Your task to perform on an android device: change notifications settings Image 0: 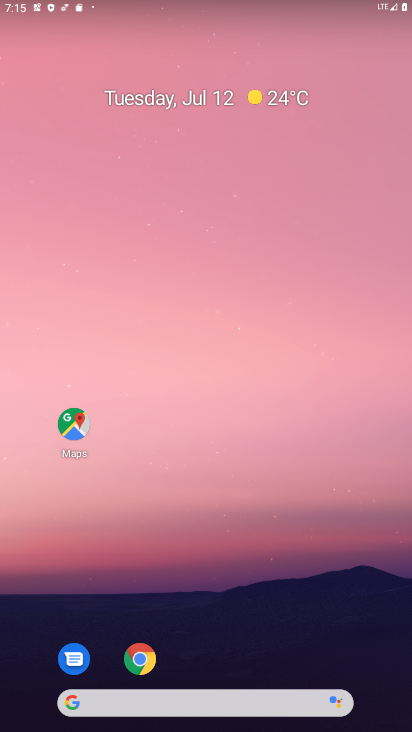
Step 0: drag from (359, 681) to (192, 2)
Your task to perform on an android device: change notifications settings Image 1: 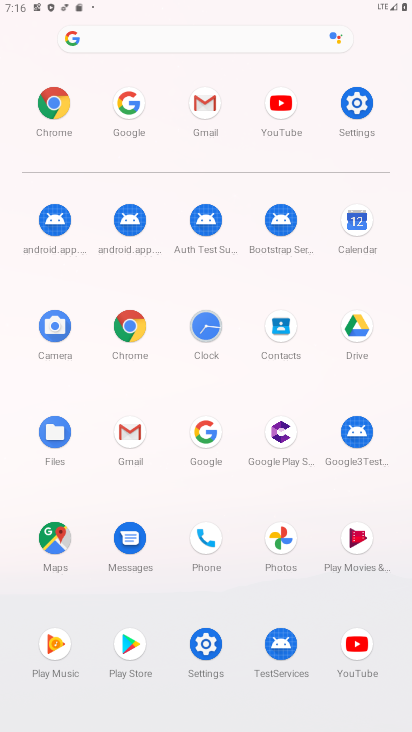
Step 1: click (198, 643)
Your task to perform on an android device: change notifications settings Image 2: 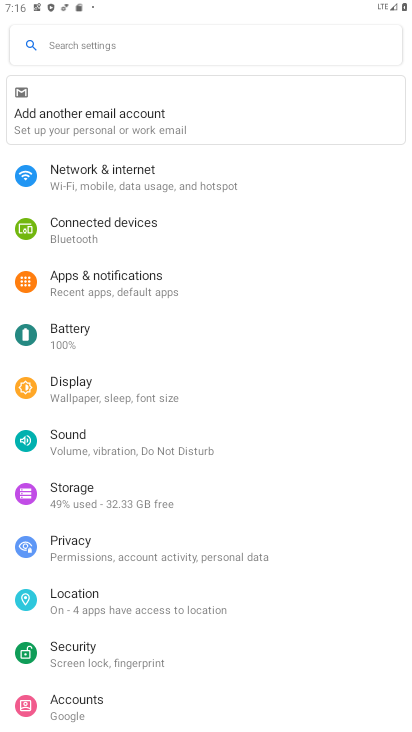
Step 2: click (102, 292)
Your task to perform on an android device: change notifications settings Image 3: 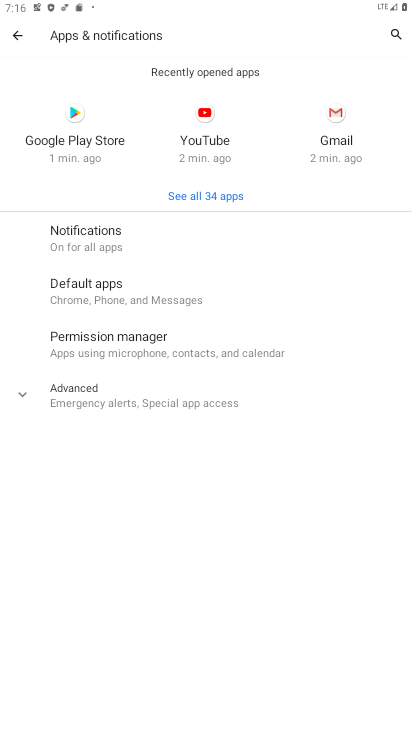
Step 3: click (84, 258)
Your task to perform on an android device: change notifications settings Image 4: 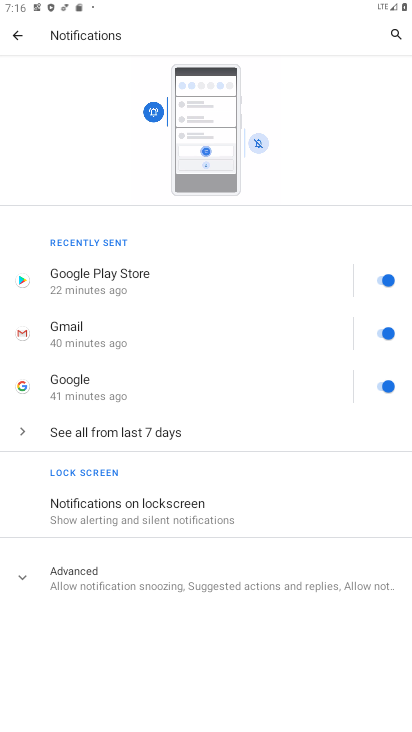
Step 4: task complete